Your task to perform on an android device: Open accessibility settings Image 0: 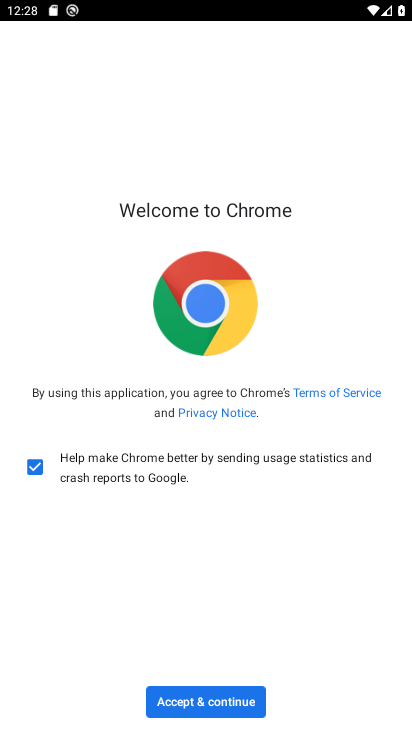
Step 0: press back button
Your task to perform on an android device: Open accessibility settings Image 1: 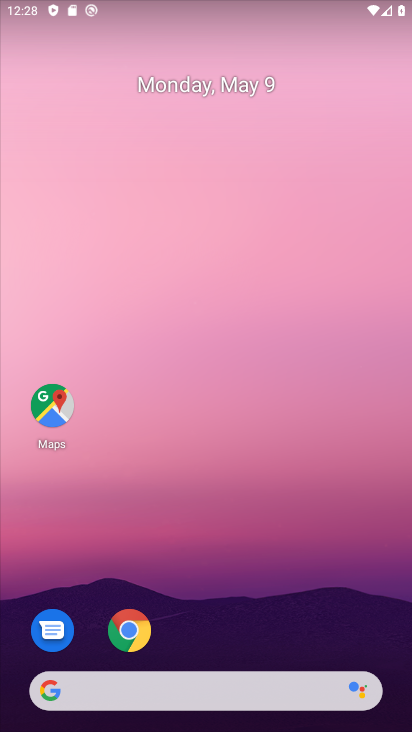
Step 1: drag from (290, 641) to (283, 229)
Your task to perform on an android device: Open accessibility settings Image 2: 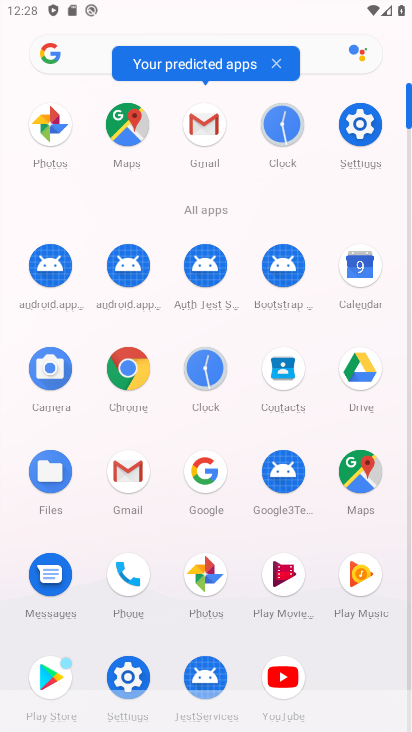
Step 2: click (126, 677)
Your task to perform on an android device: Open accessibility settings Image 3: 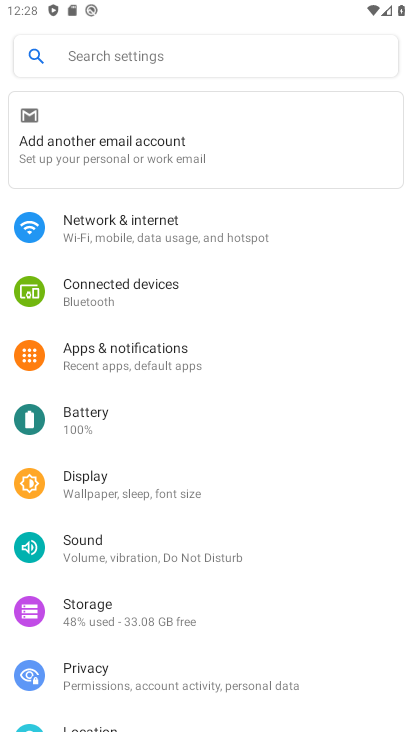
Step 3: drag from (200, 674) to (329, 401)
Your task to perform on an android device: Open accessibility settings Image 4: 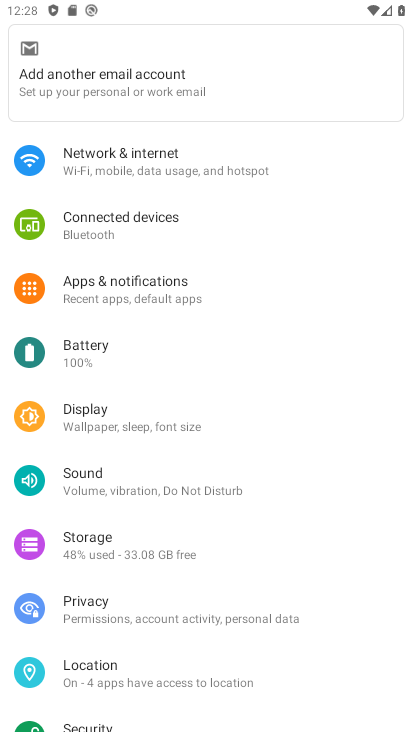
Step 4: drag from (210, 663) to (277, 564)
Your task to perform on an android device: Open accessibility settings Image 5: 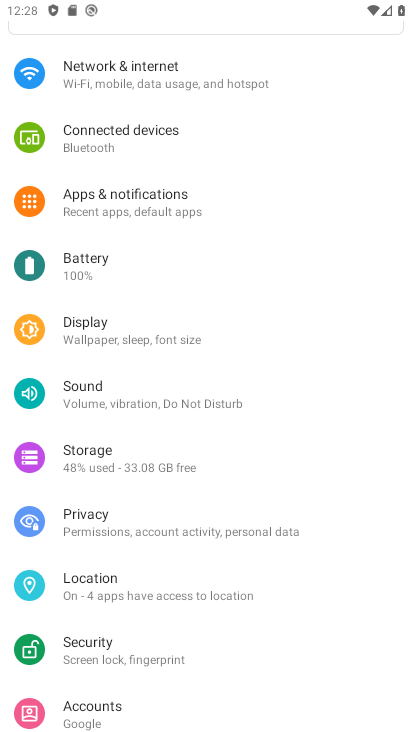
Step 5: drag from (203, 657) to (288, 463)
Your task to perform on an android device: Open accessibility settings Image 6: 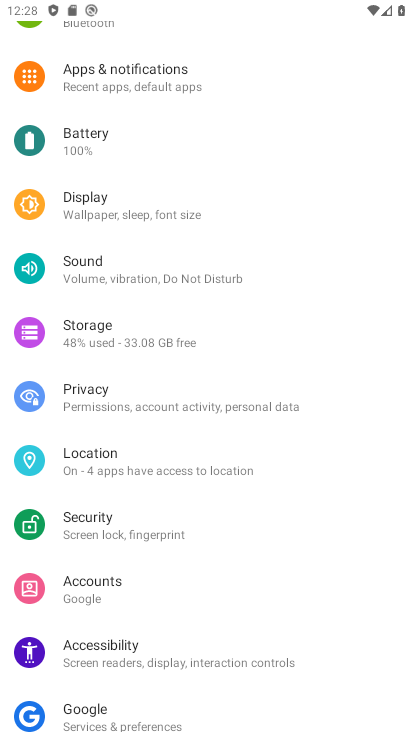
Step 6: click (202, 663)
Your task to perform on an android device: Open accessibility settings Image 7: 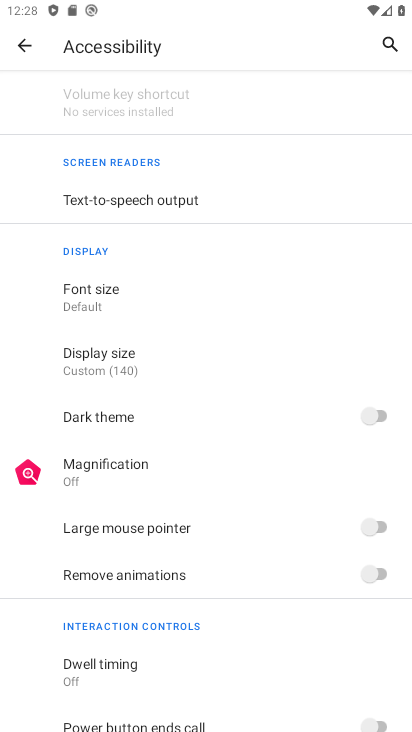
Step 7: task complete